Your task to perform on an android device: Go to eBay Image 0: 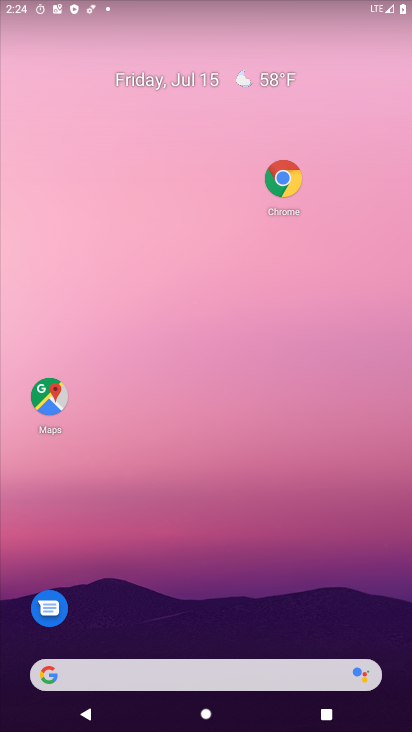
Step 0: drag from (164, 547) to (160, 119)
Your task to perform on an android device: Go to eBay Image 1: 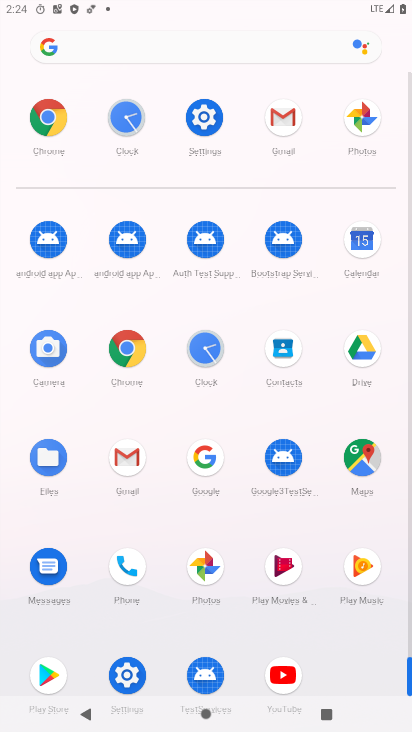
Step 1: click (50, 114)
Your task to perform on an android device: Go to eBay Image 2: 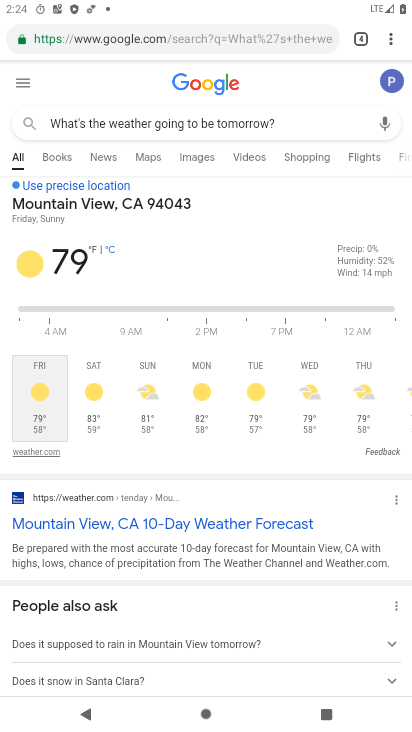
Step 2: click (135, 33)
Your task to perform on an android device: Go to eBay Image 3: 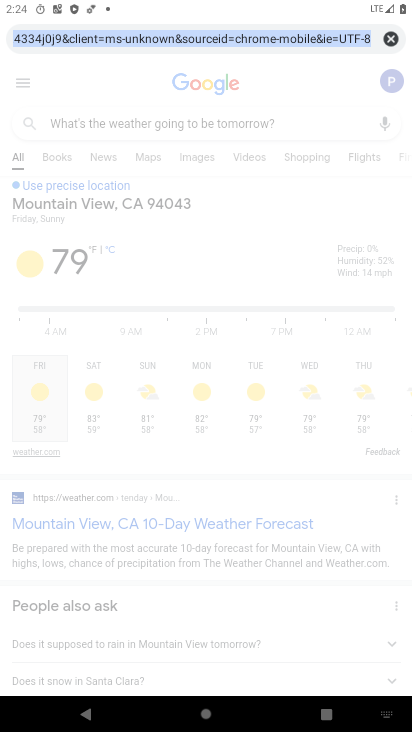
Step 3: click (381, 36)
Your task to perform on an android device: Go to eBay Image 4: 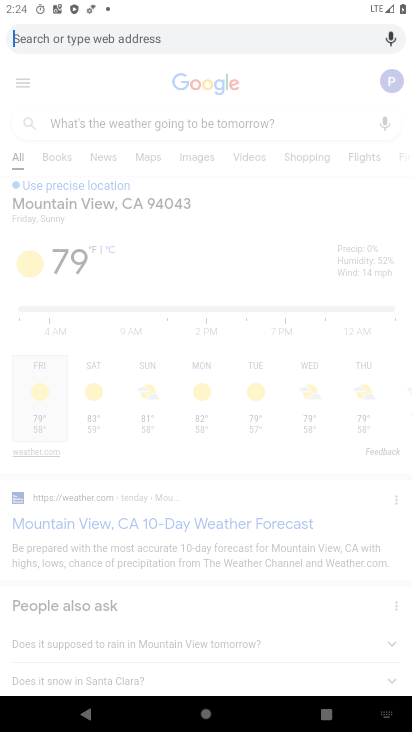
Step 4: type "eBay"
Your task to perform on an android device: Go to eBay Image 5: 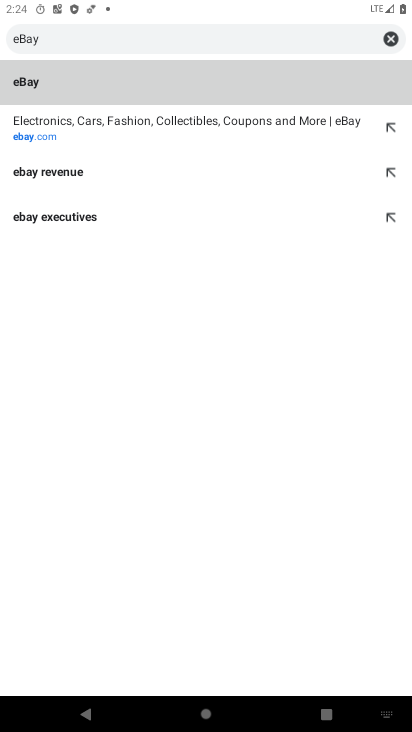
Step 5: click (22, 134)
Your task to perform on an android device: Go to eBay Image 6: 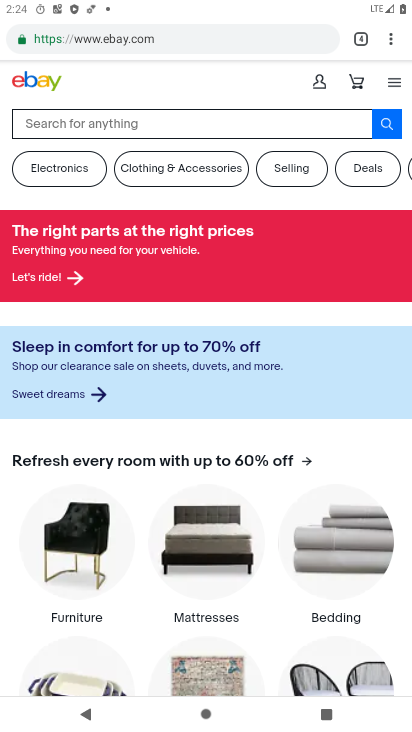
Step 6: task complete